Your task to perform on an android device: turn on the 24-hour format for clock Image 0: 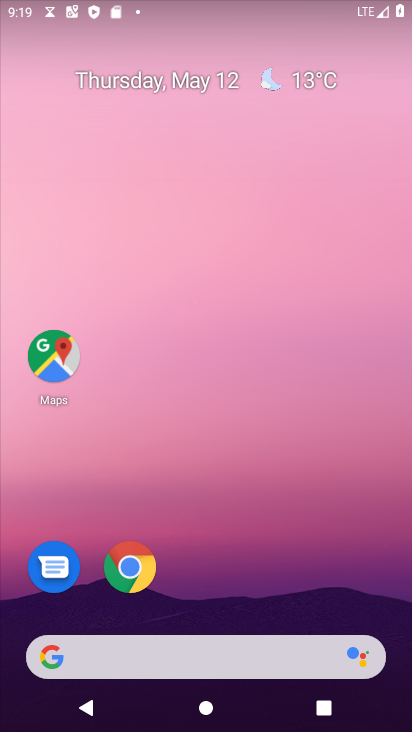
Step 0: drag from (174, 616) to (264, 219)
Your task to perform on an android device: turn on the 24-hour format for clock Image 1: 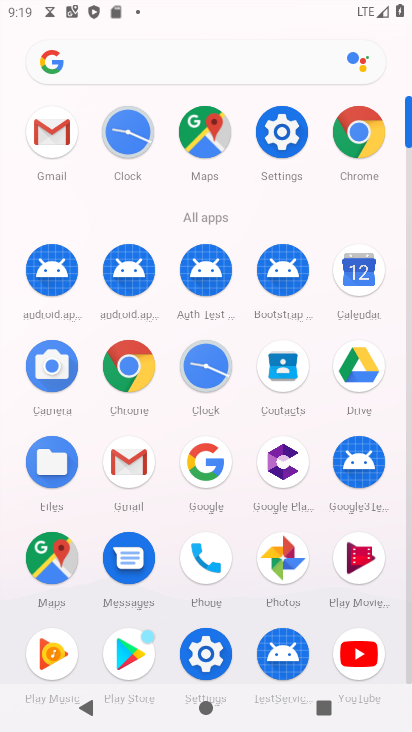
Step 1: click (215, 373)
Your task to perform on an android device: turn on the 24-hour format for clock Image 2: 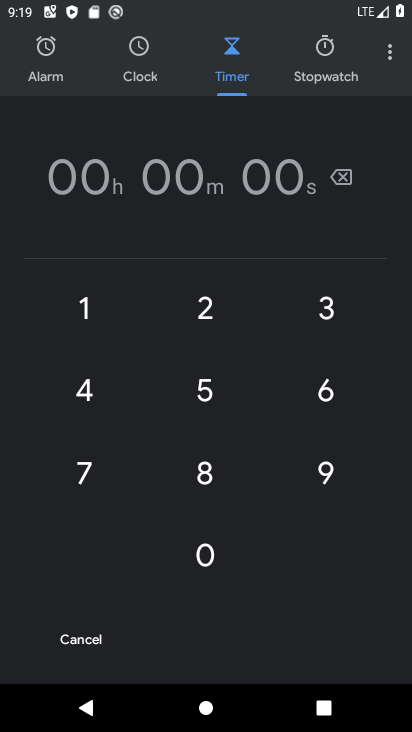
Step 2: click (388, 48)
Your task to perform on an android device: turn on the 24-hour format for clock Image 3: 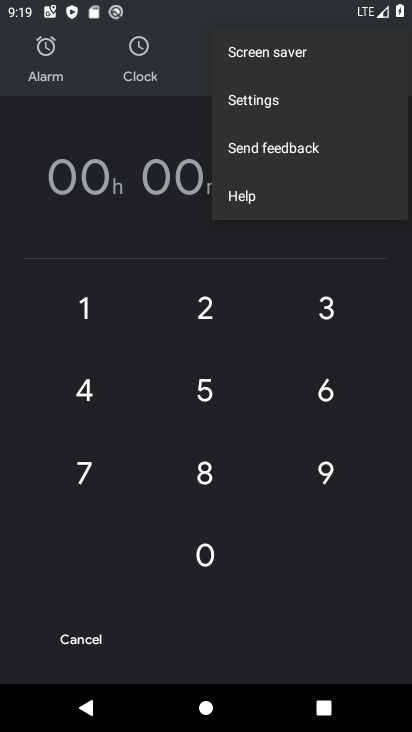
Step 3: click (294, 107)
Your task to perform on an android device: turn on the 24-hour format for clock Image 4: 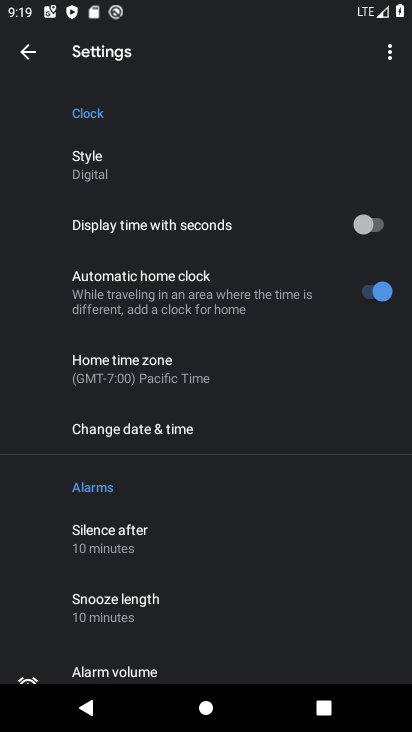
Step 4: click (113, 433)
Your task to perform on an android device: turn on the 24-hour format for clock Image 5: 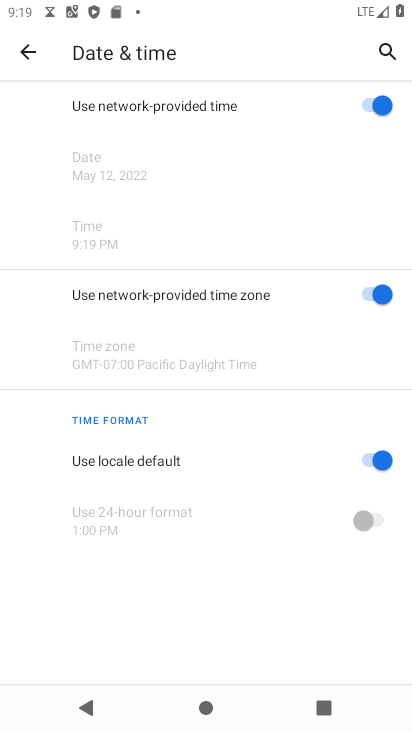
Step 5: drag from (281, 611) to (269, 466)
Your task to perform on an android device: turn on the 24-hour format for clock Image 6: 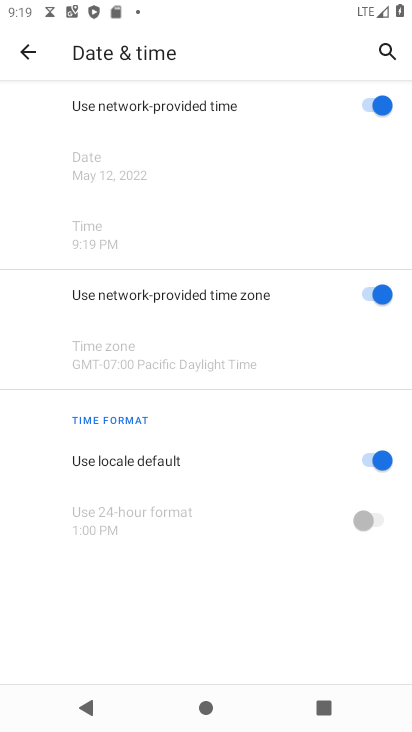
Step 6: click (377, 451)
Your task to perform on an android device: turn on the 24-hour format for clock Image 7: 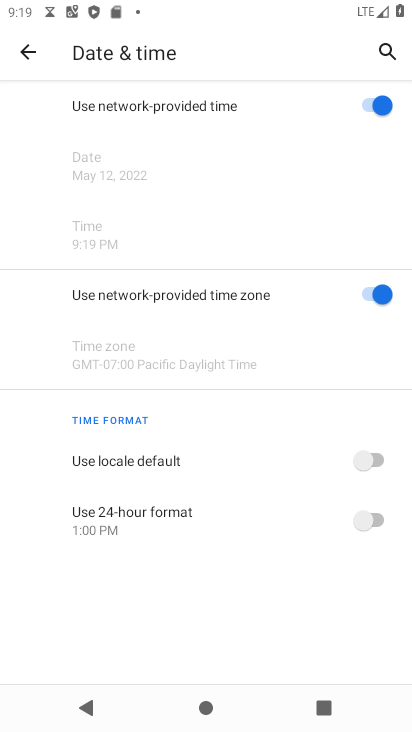
Step 7: click (380, 531)
Your task to perform on an android device: turn on the 24-hour format for clock Image 8: 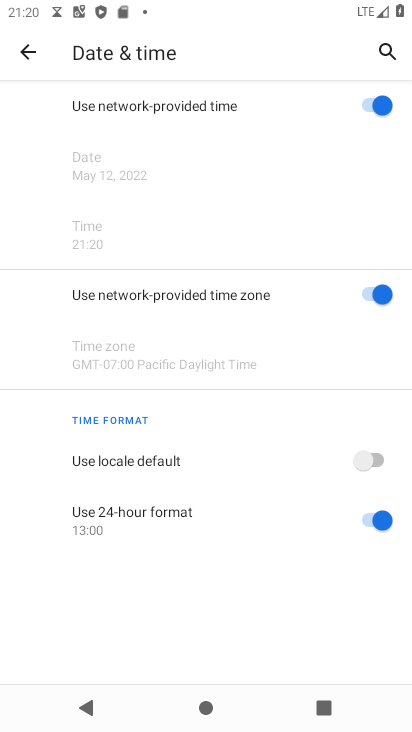
Step 8: task complete